Your task to perform on an android device: Go to CNN.com Image 0: 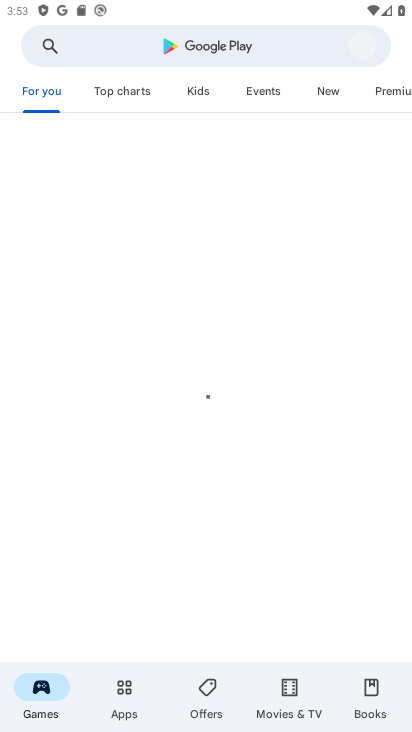
Step 0: press home button
Your task to perform on an android device: Go to CNN.com Image 1: 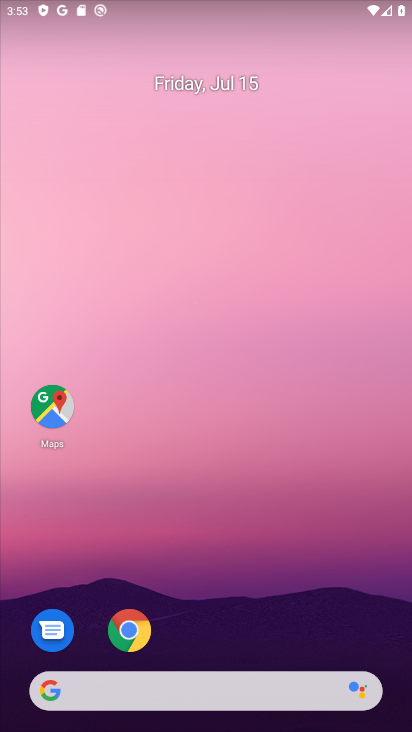
Step 1: click (132, 634)
Your task to perform on an android device: Go to CNN.com Image 2: 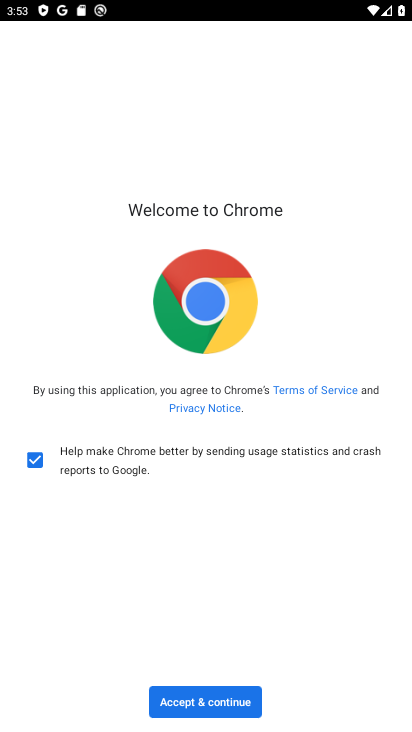
Step 2: click (222, 695)
Your task to perform on an android device: Go to CNN.com Image 3: 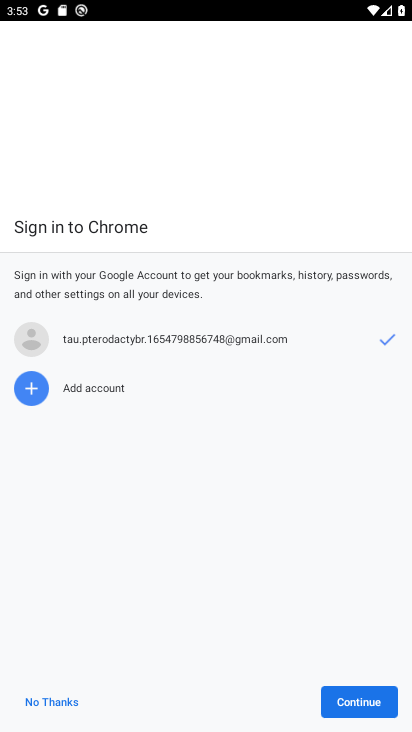
Step 3: click (345, 695)
Your task to perform on an android device: Go to CNN.com Image 4: 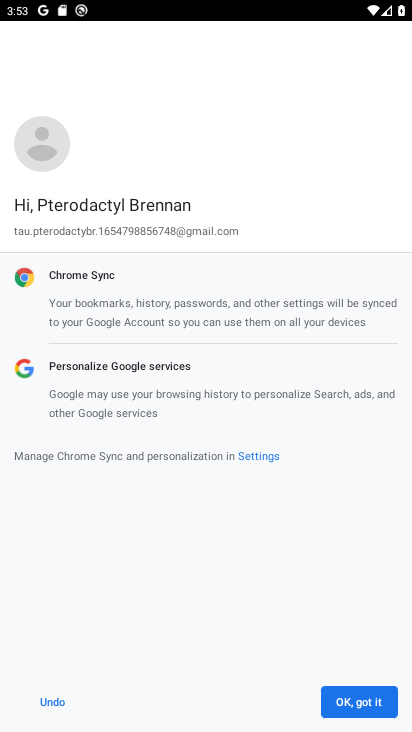
Step 4: click (345, 695)
Your task to perform on an android device: Go to CNN.com Image 5: 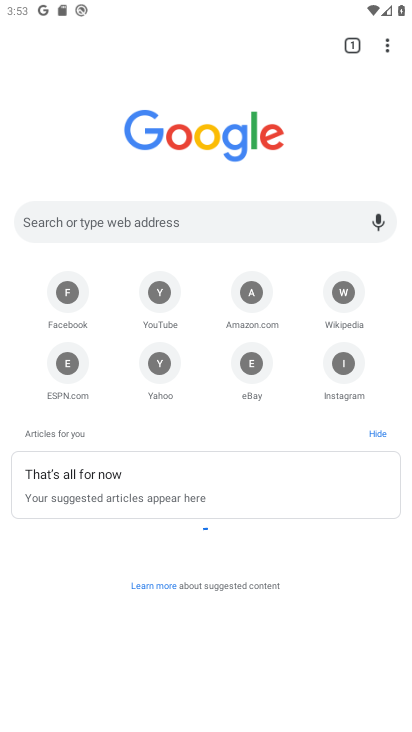
Step 5: click (195, 222)
Your task to perform on an android device: Go to CNN.com Image 6: 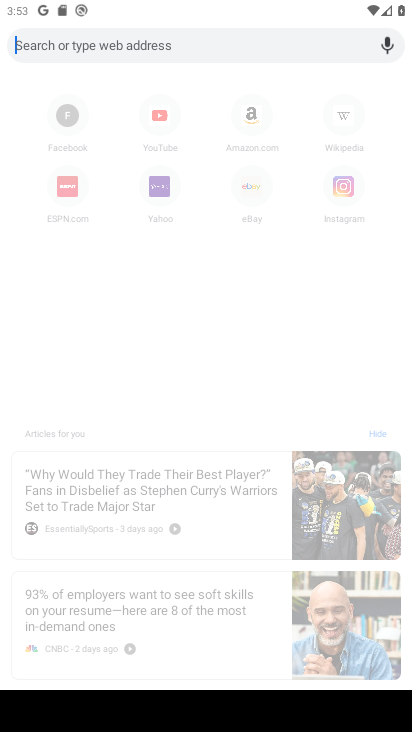
Step 6: type "CNN.com"
Your task to perform on an android device: Go to CNN.com Image 7: 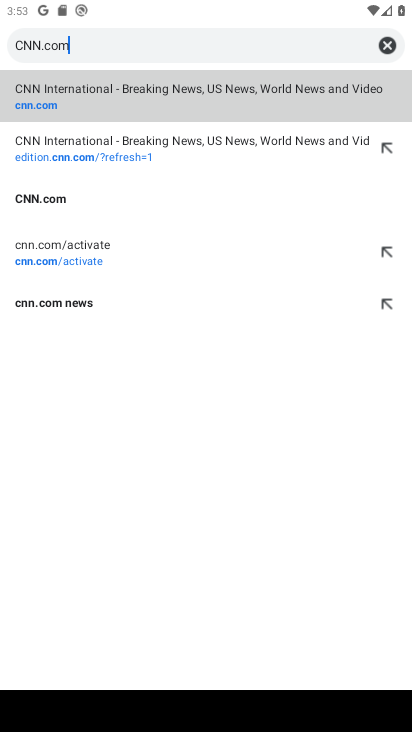
Step 7: click (196, 110)
Your task to perform on an android device: Go to CNN.com Image 8: 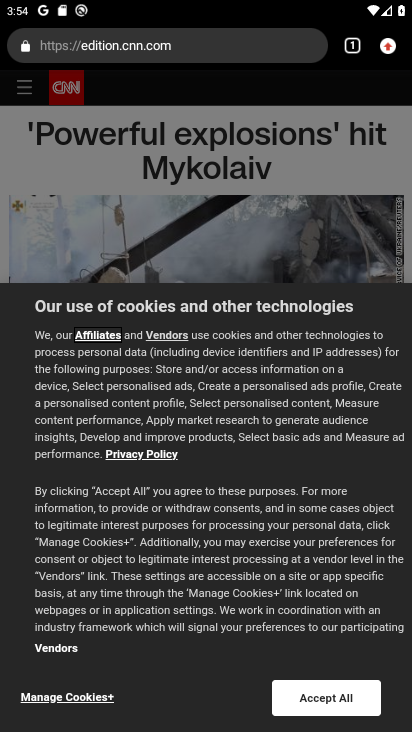
Step 8: click (305, 695)
Your task to perform on an android device: Go to CNN.com Image 9: 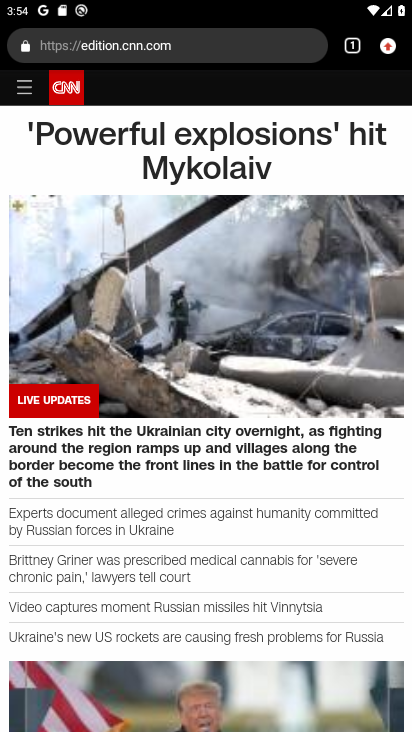
Step 9: task complete